Your task to perform on an android device: open wifi settings Image 0: 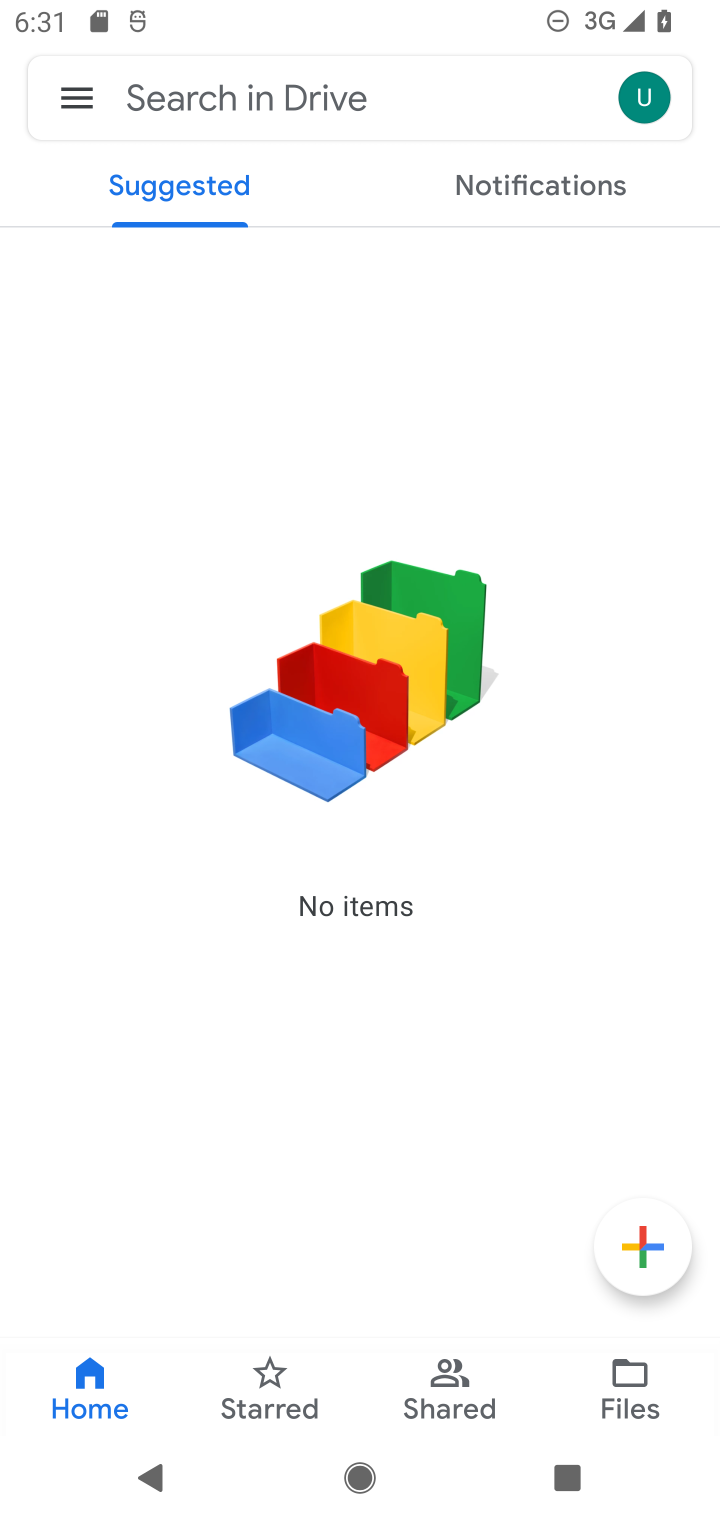
Step 0: press home button
Your task to perform on an android device: open wifi settings Image 1: 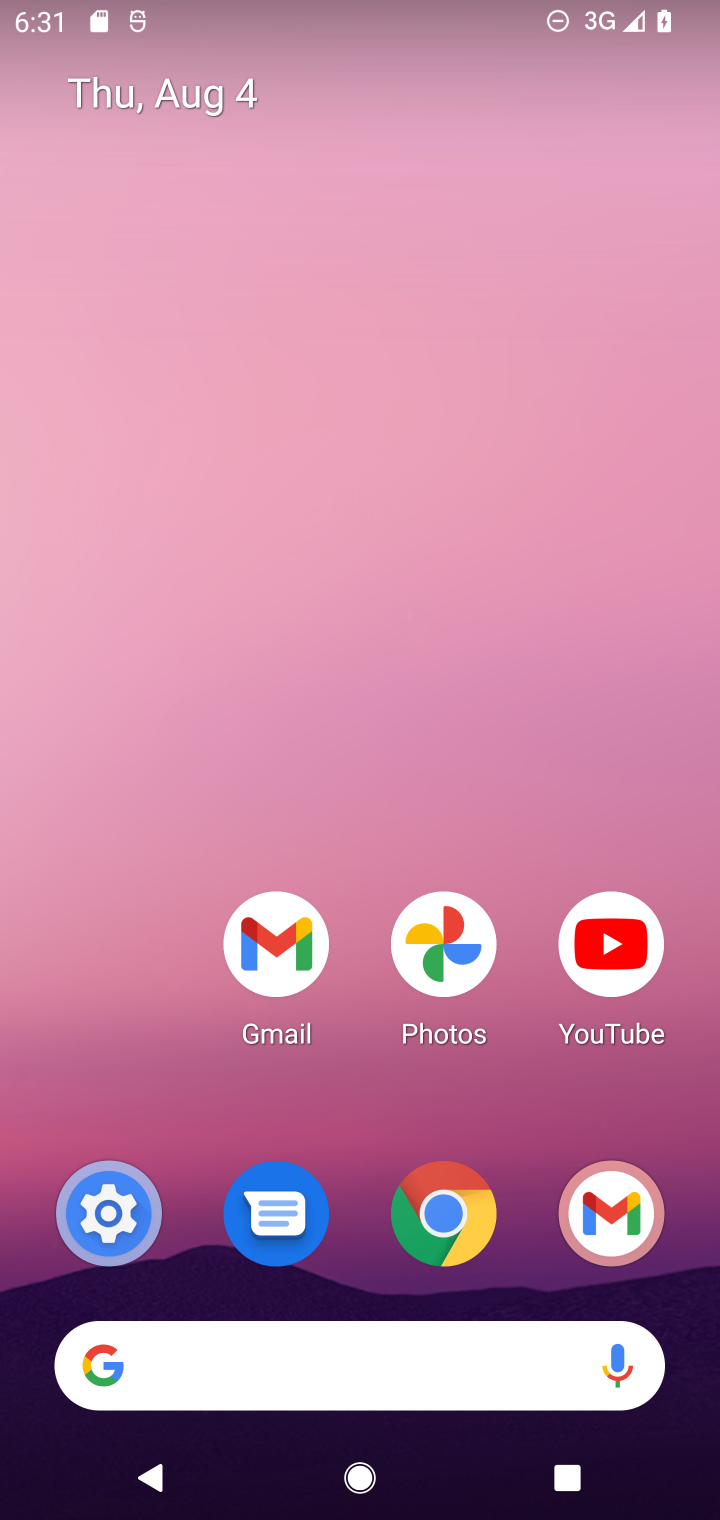
Step 1: drag from (193, 1111) to (220, 430)
Your task to perform on an android device: open wifi settings Image 2: 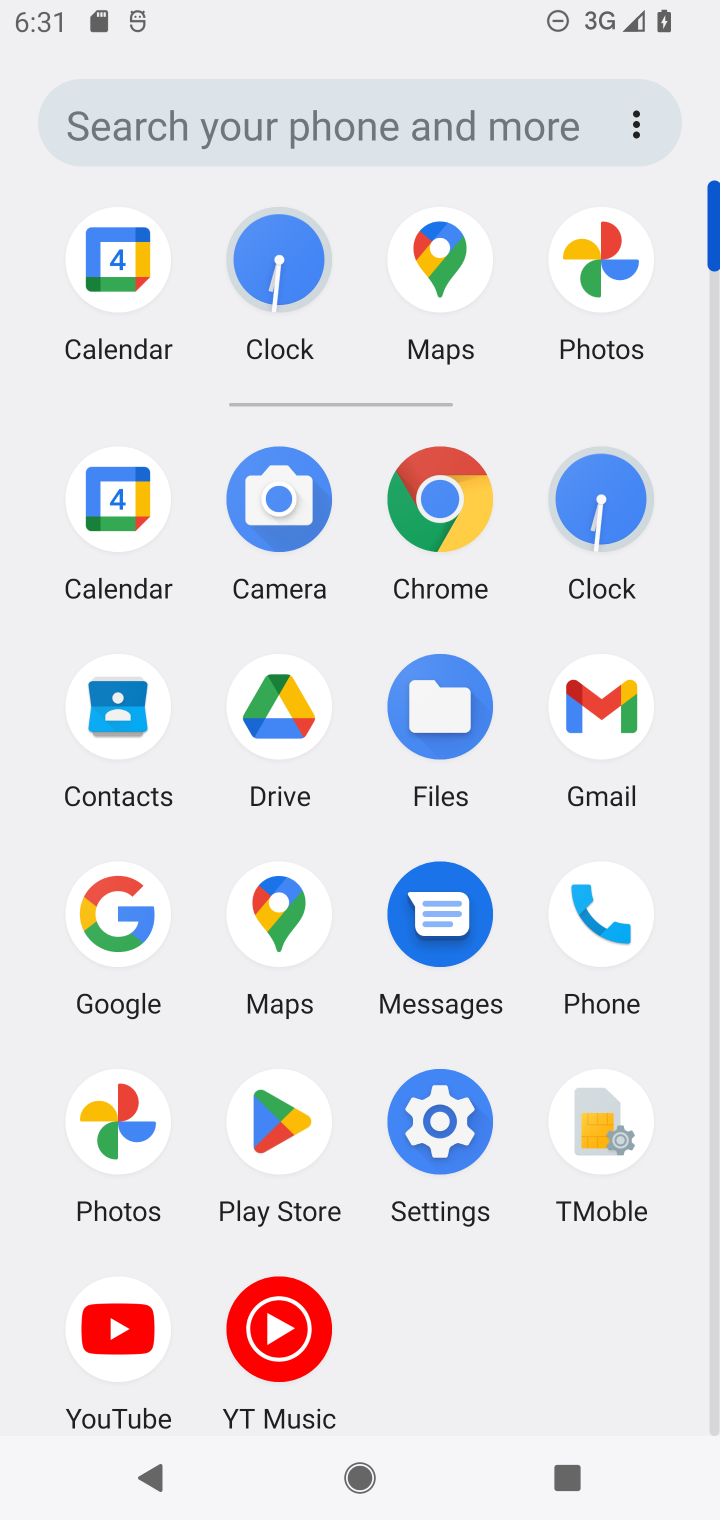
Step 2: click (482, 1134)
Your task to perform on an android device: open wifi settings Image 3: 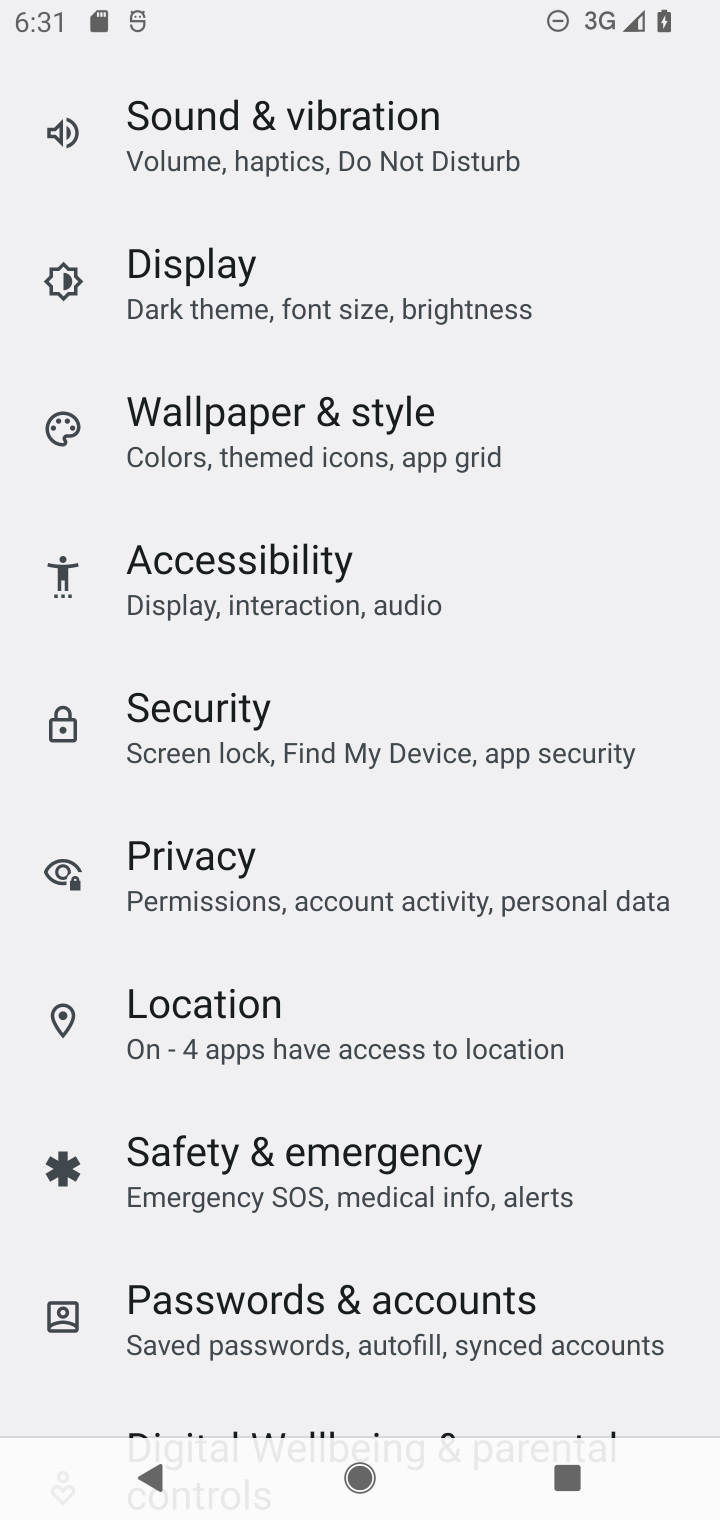
Step 3: drag from (636, 1196) to (640, 902)
Your task to perform on an android device: open wifi settings Image 4: 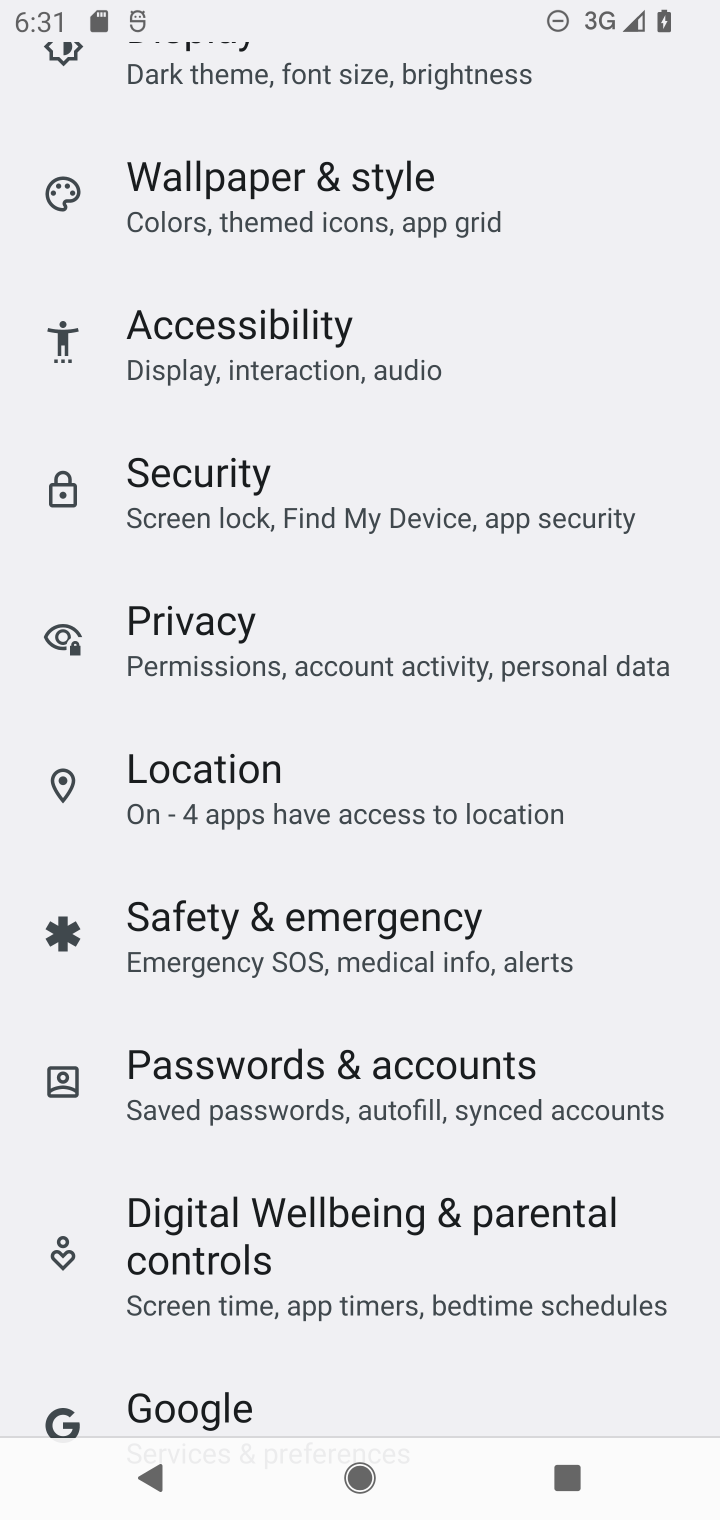
Step 4: drag from (624, 1350) to (619, 1000)
Your task to perform on an android device: open wifi settings Image 5: 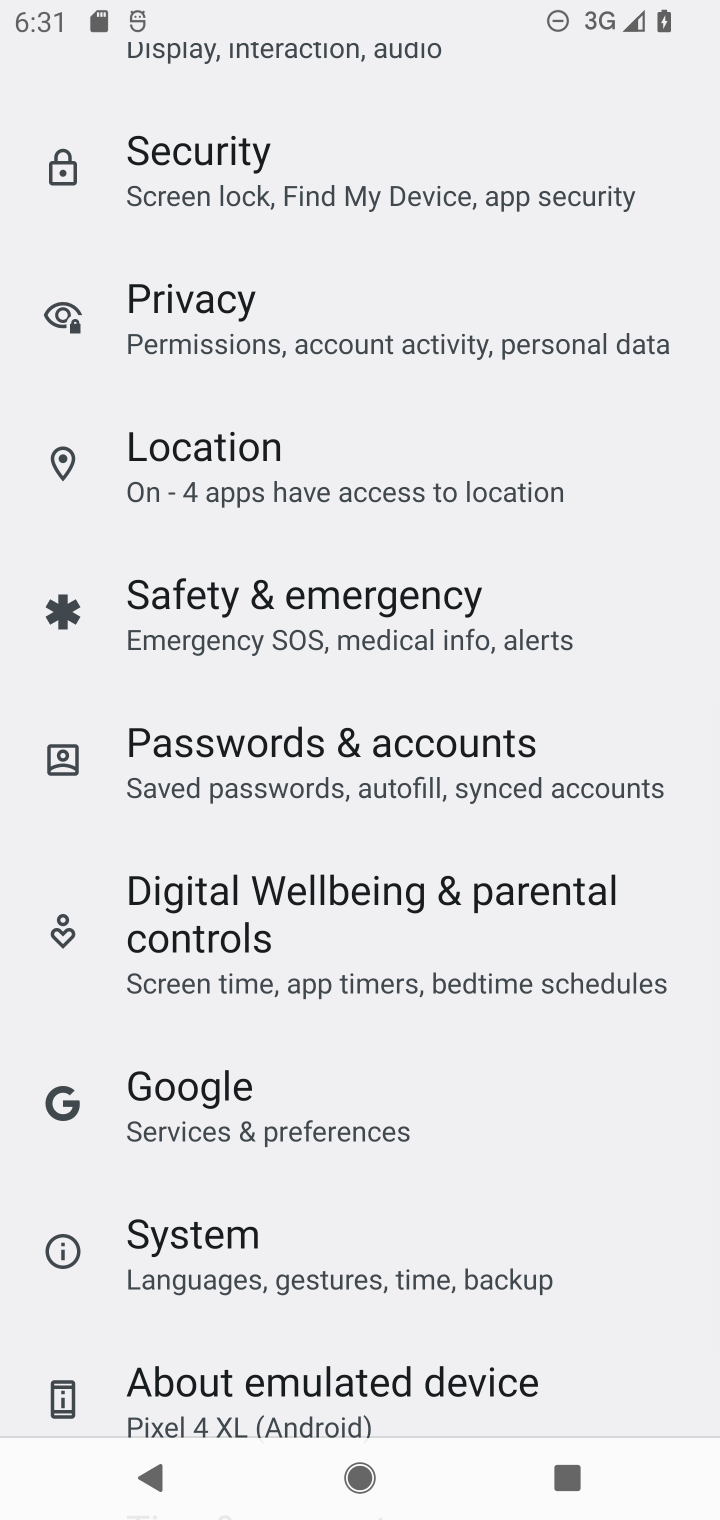
Step 5: drag from (619, 1263) to (621, 1010)
Your task to perform on an android device: open wifi settings Image 6: 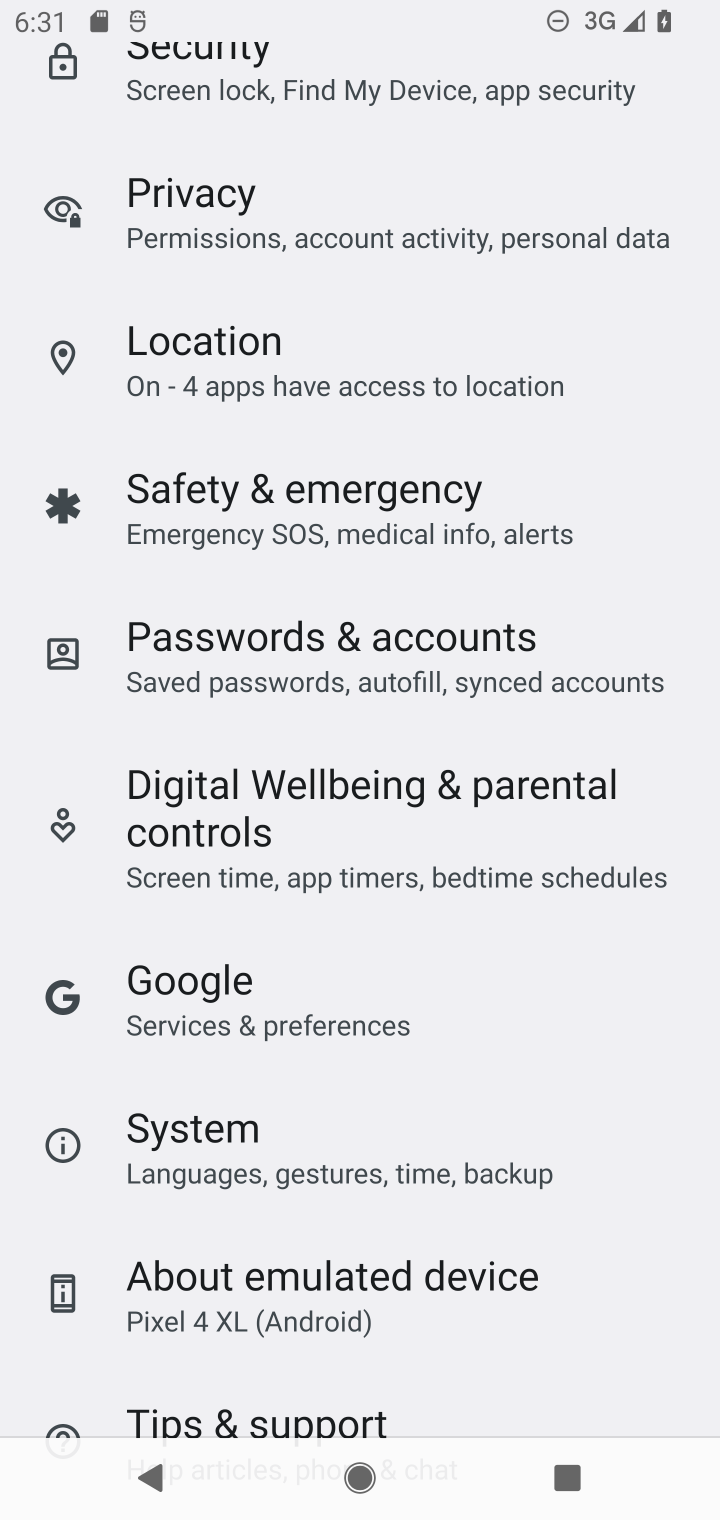
Step 6: drag from (629, 1305) to (617, 989)
Your task to perform on an android device: open wifi settings Image 7: 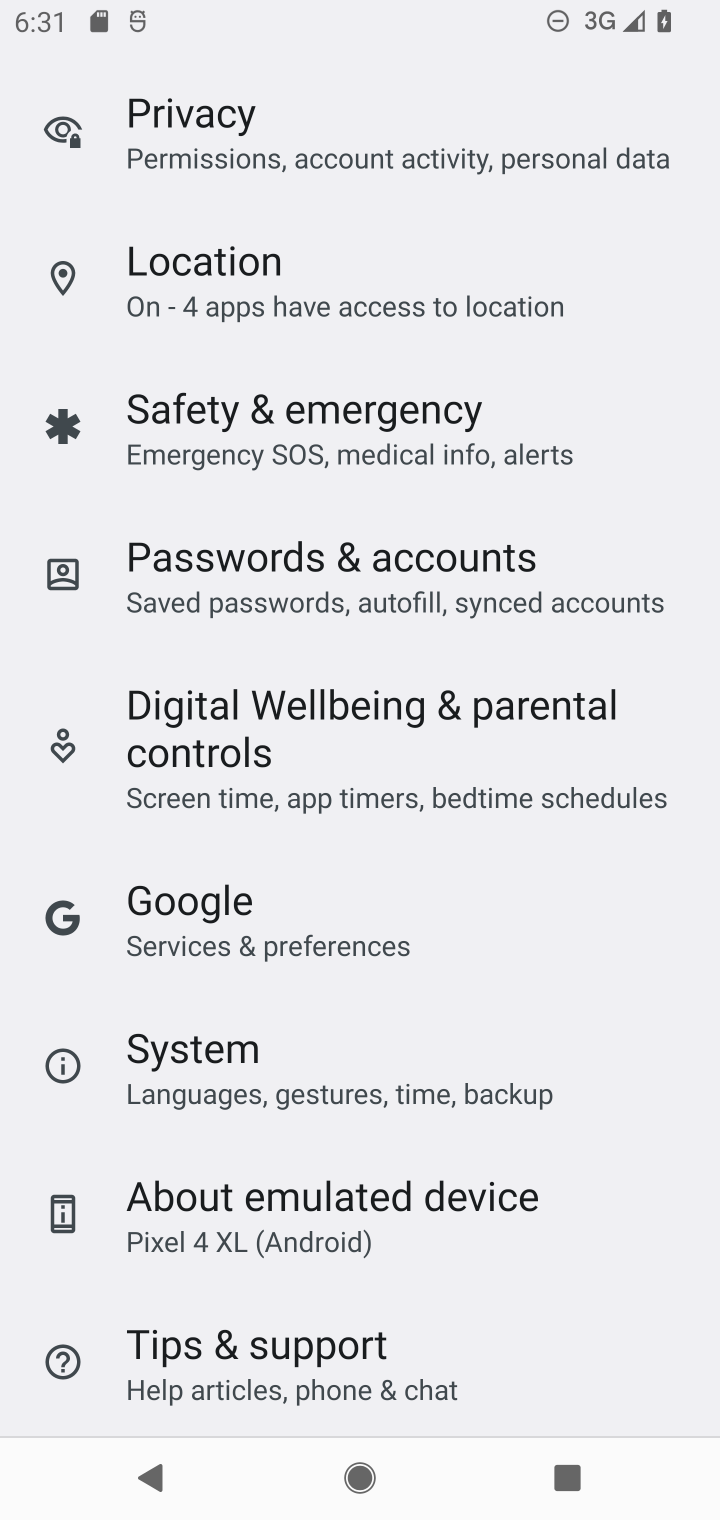
Step 7: drag from (585, 1333) to (614, 1056)
Your task to perform on an android device: open wifi settings Image 8: 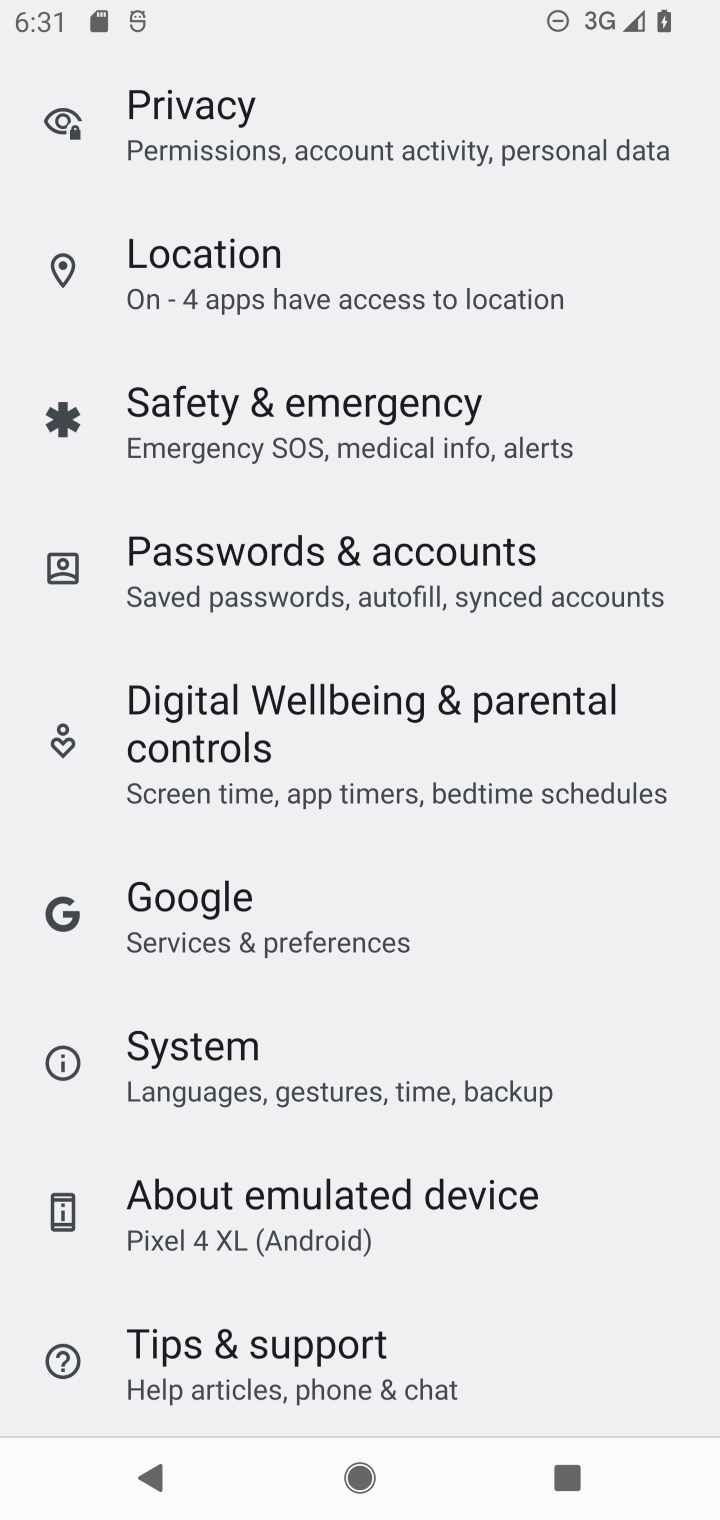
Step 8: drag from (618, 892) to (629, 1094)
Your task to perform on an android device: open wifi settings Image 9: 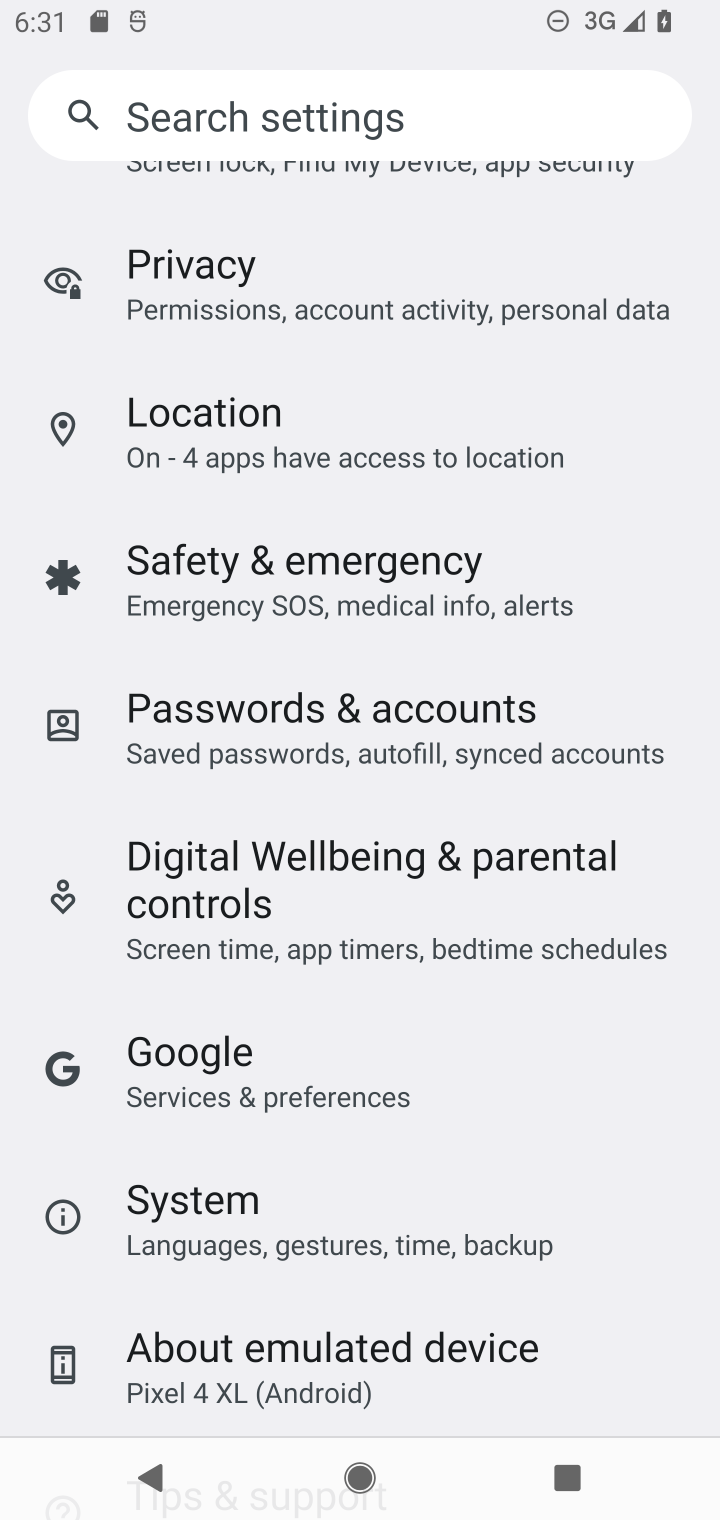
Step 9: drag from (633, 539) to (635, 874)
Your task to perform on an android device: open wifi settings Image 10: 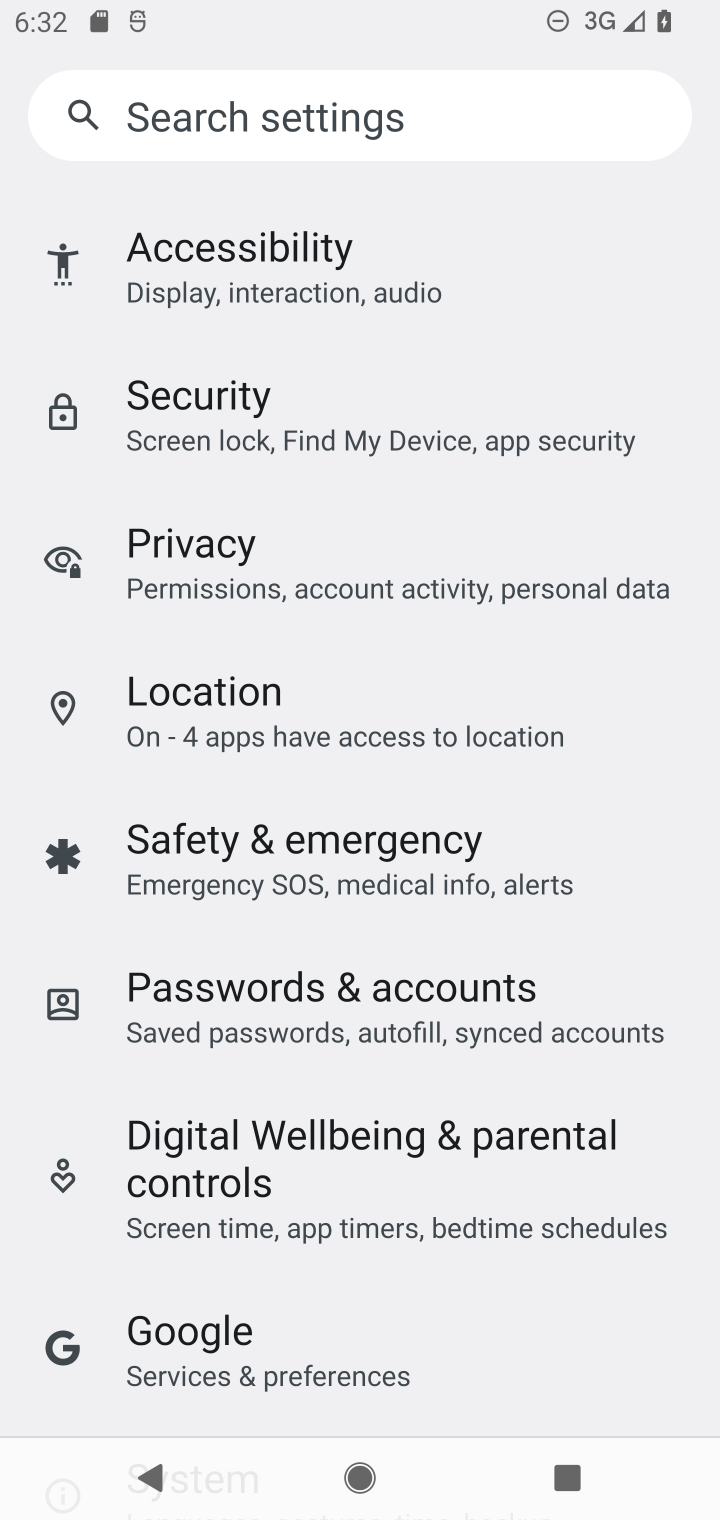
Step 10: drag from (635, 530) to (625, 749)
Your task to perform on an android device: open wifi settings Image 11: 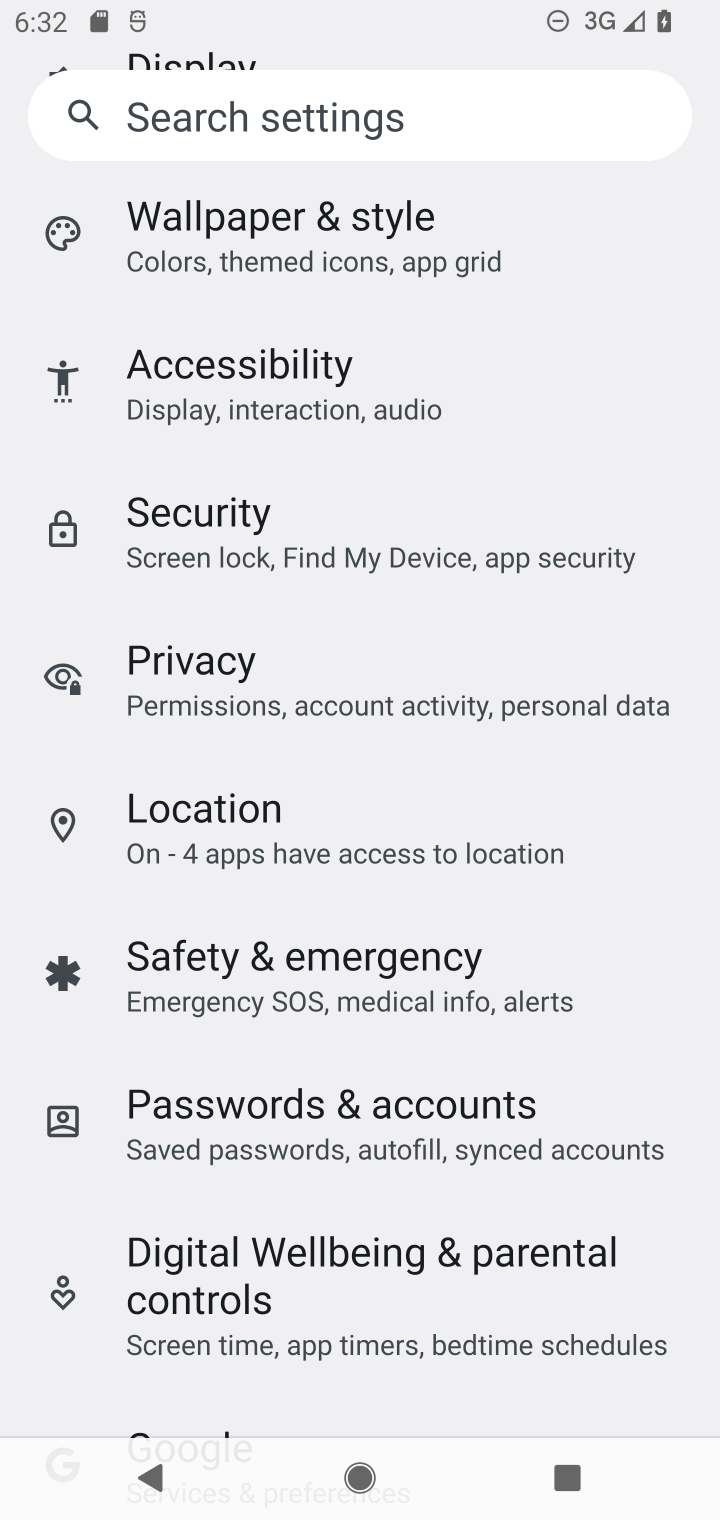
Step 11: drag from (597, 386) to (599, 600)
Your task to perform on an android device: open wifi settings Image 12: 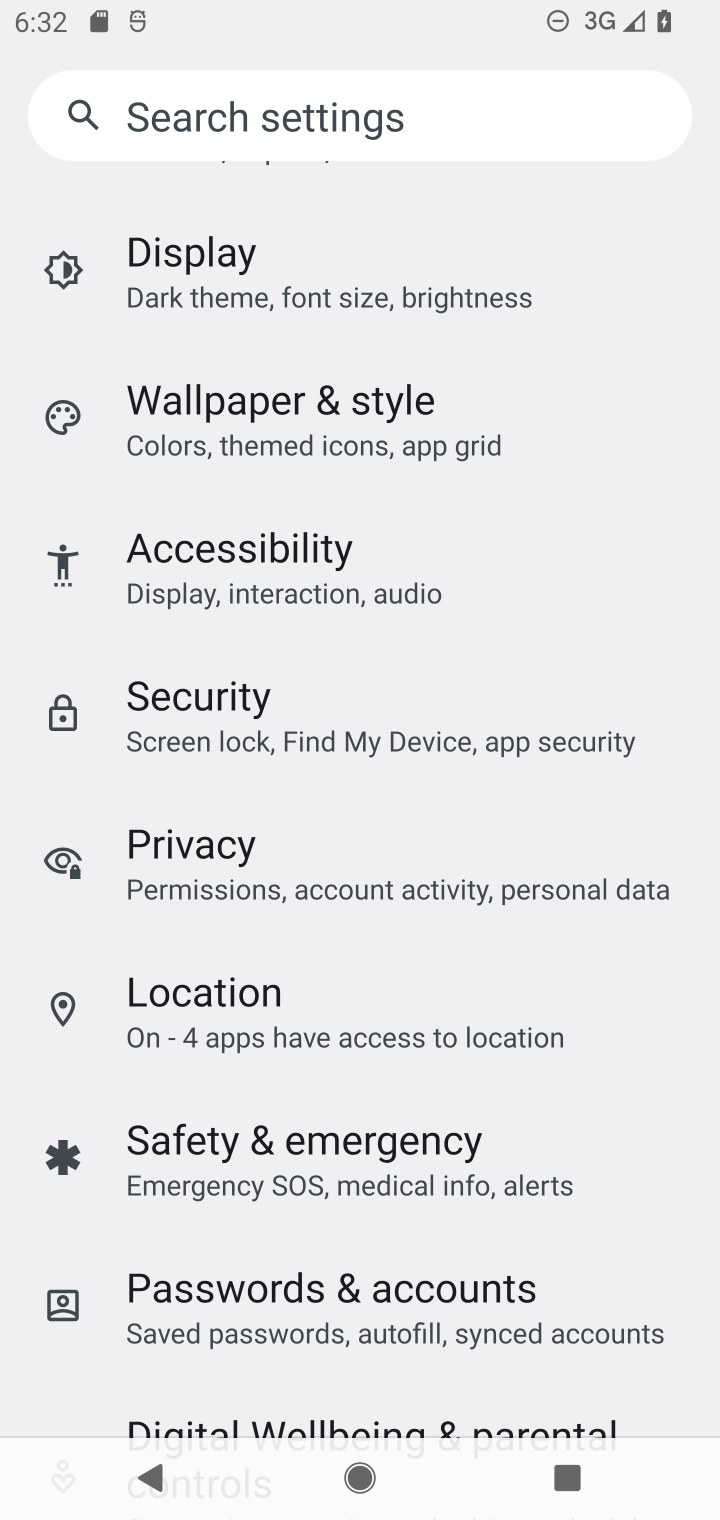
Step 12: drag from (599, 399) to (601, 575)
Your task to perform on an android device: open wifi settings Image 13: 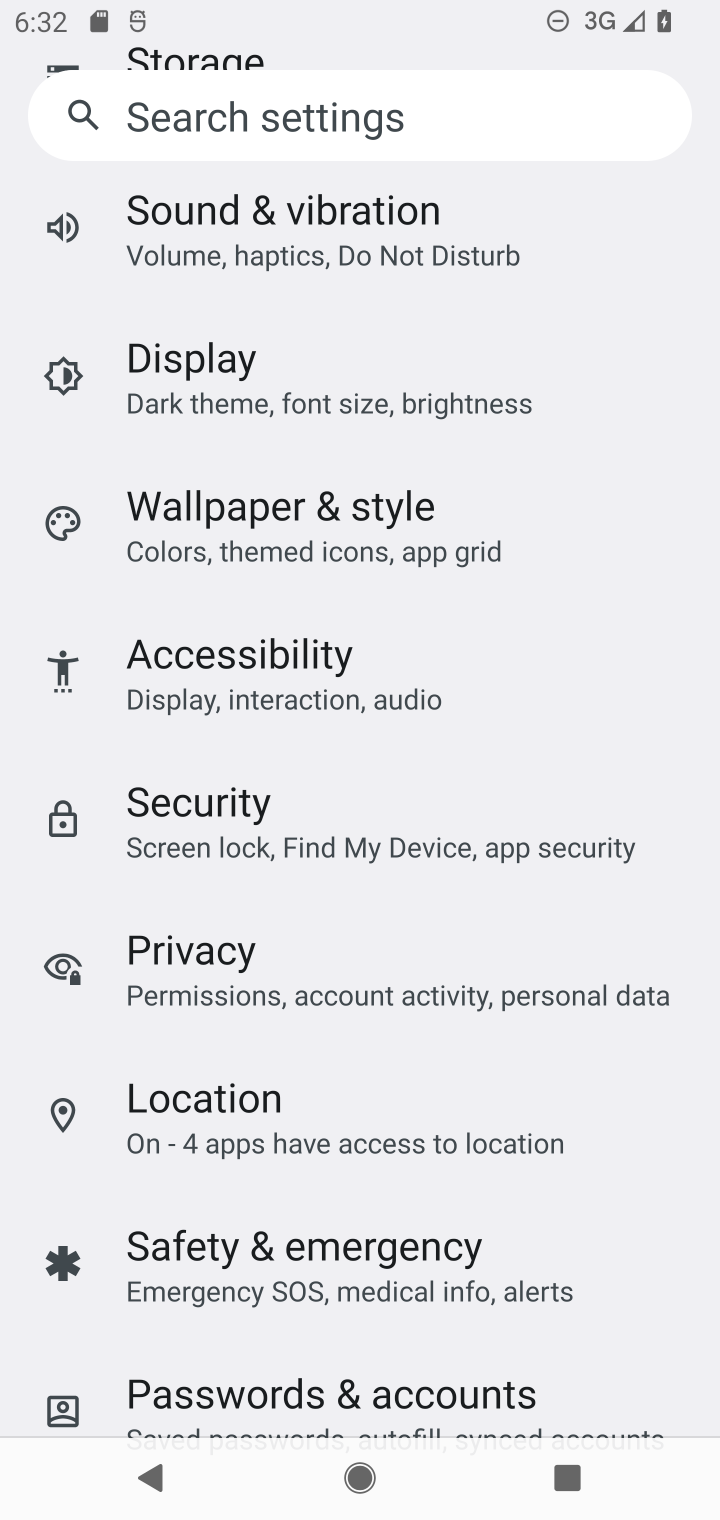
Step 13: drag from (607, 388) to (607, 651)
Your task to perform on an android device: open wifi settings Image 14: 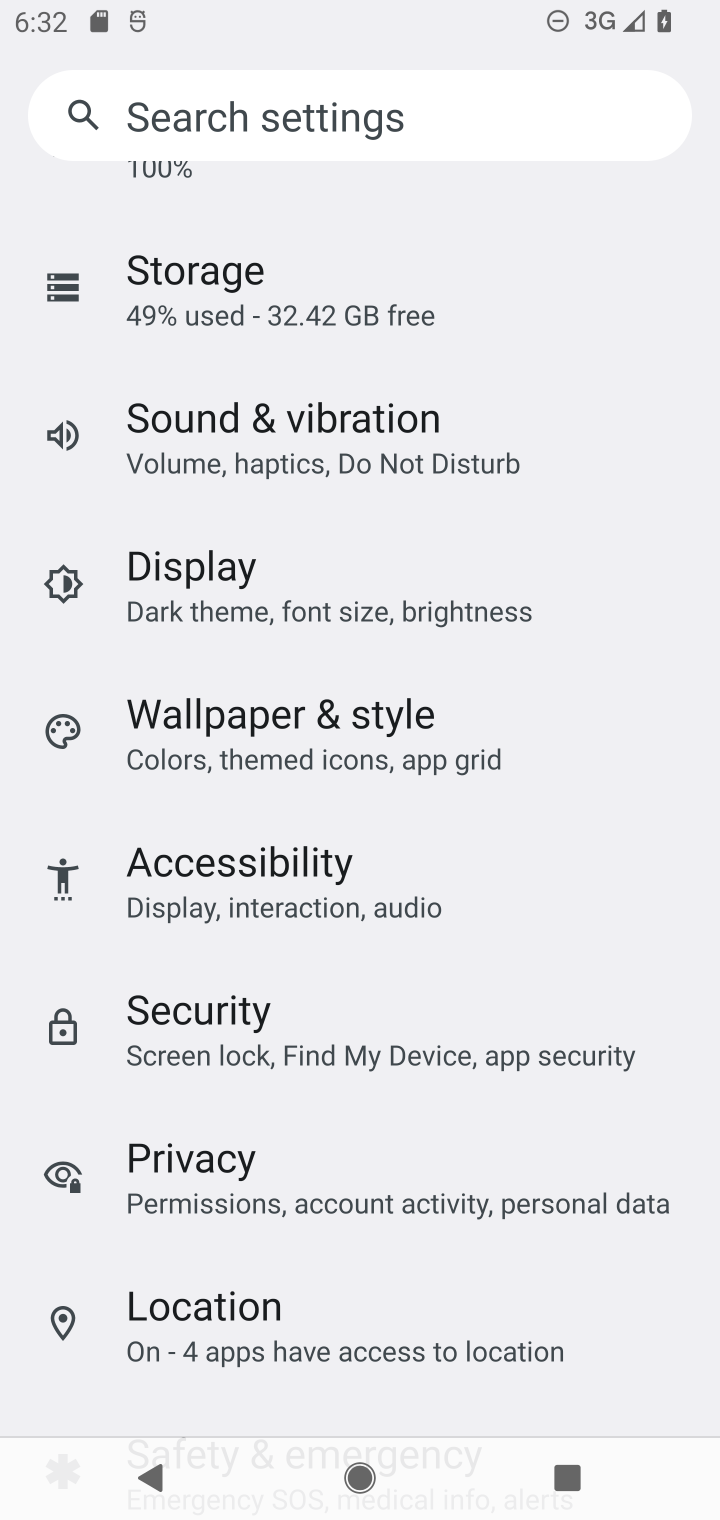
Step 14: drag from (607, 343) to (595, 579)
Your task to perform on an android device: open wifi settings Image 15: 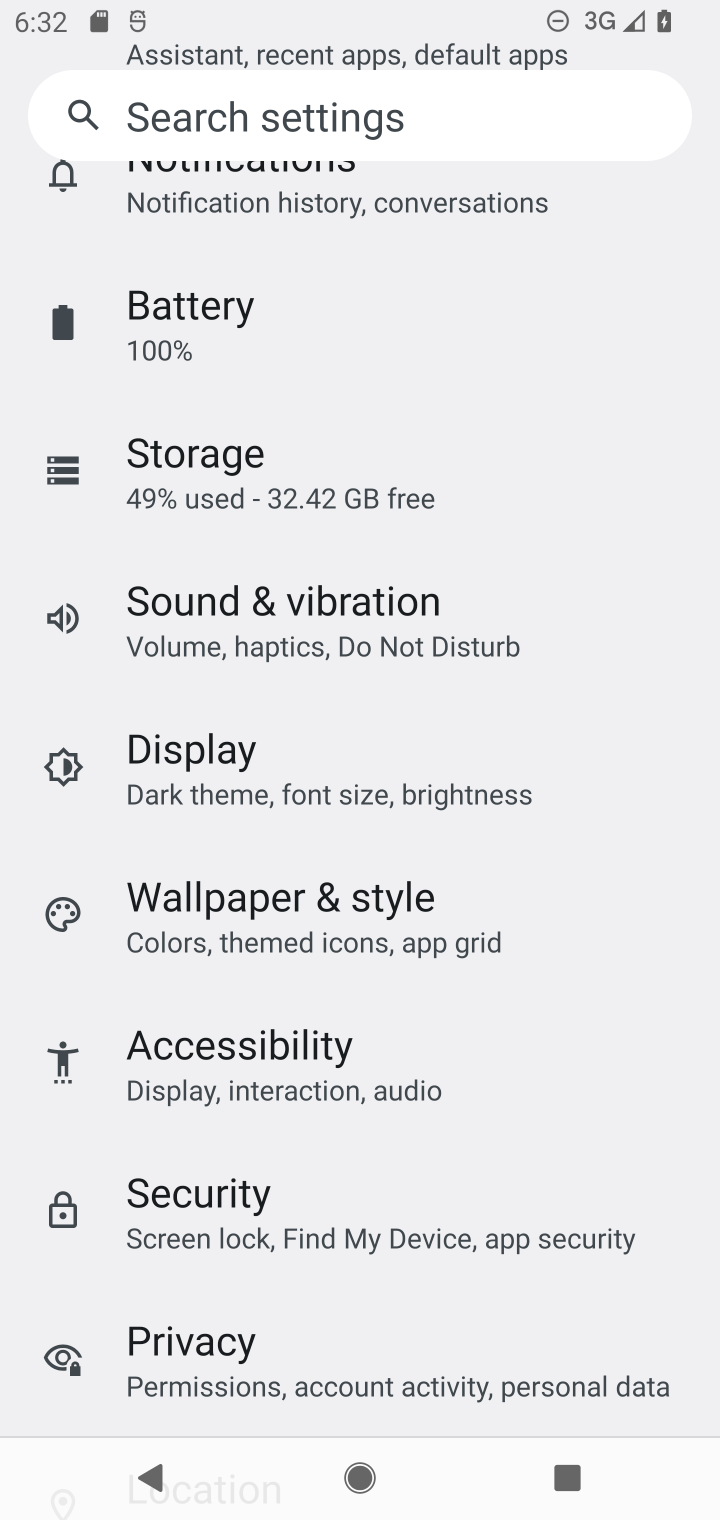
Step 15: drag from (597, 309) to (607, 562)
Your task to perform on an android device: open wifi settings Image 16: 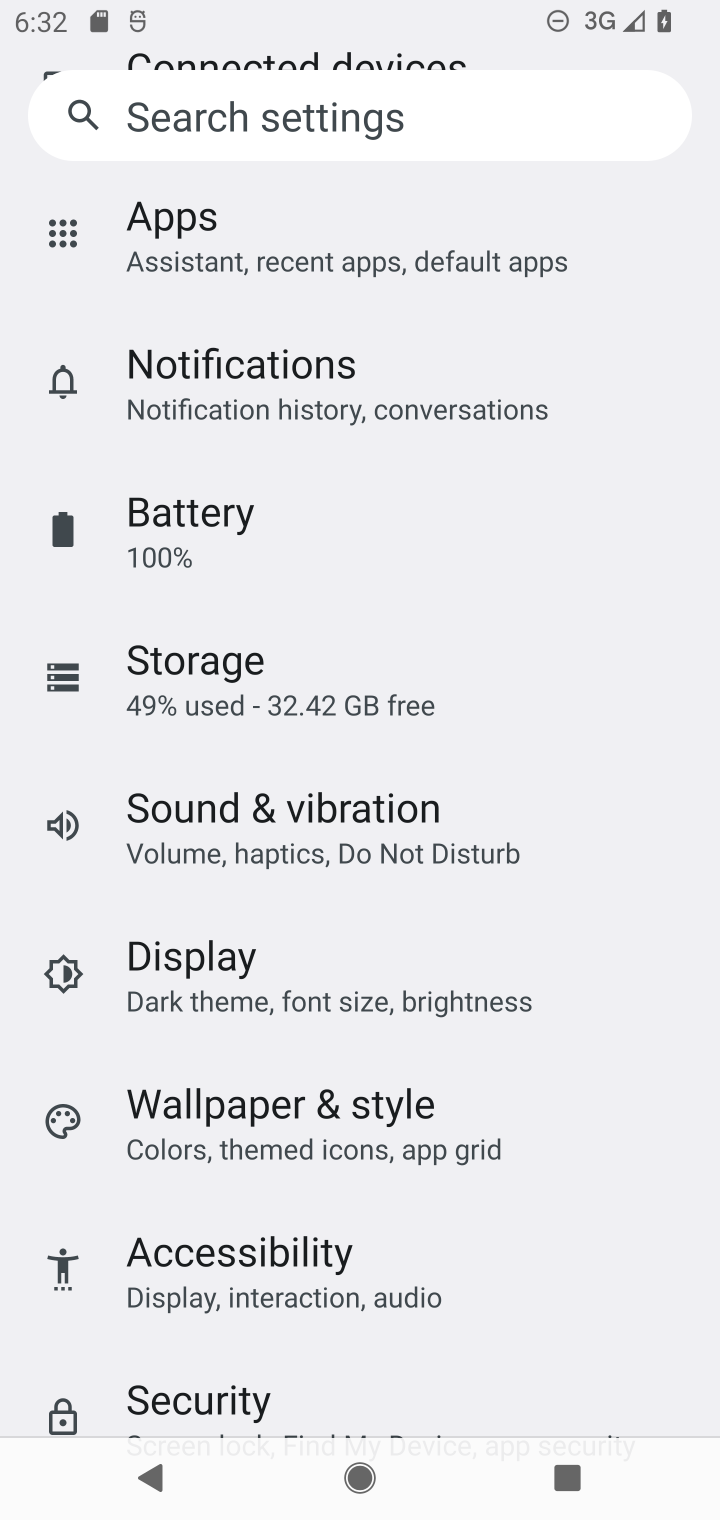
Step 16: drag from (595, 304) to (598, 570)
Your task to perform on an android device: open wifi settings Image 17: 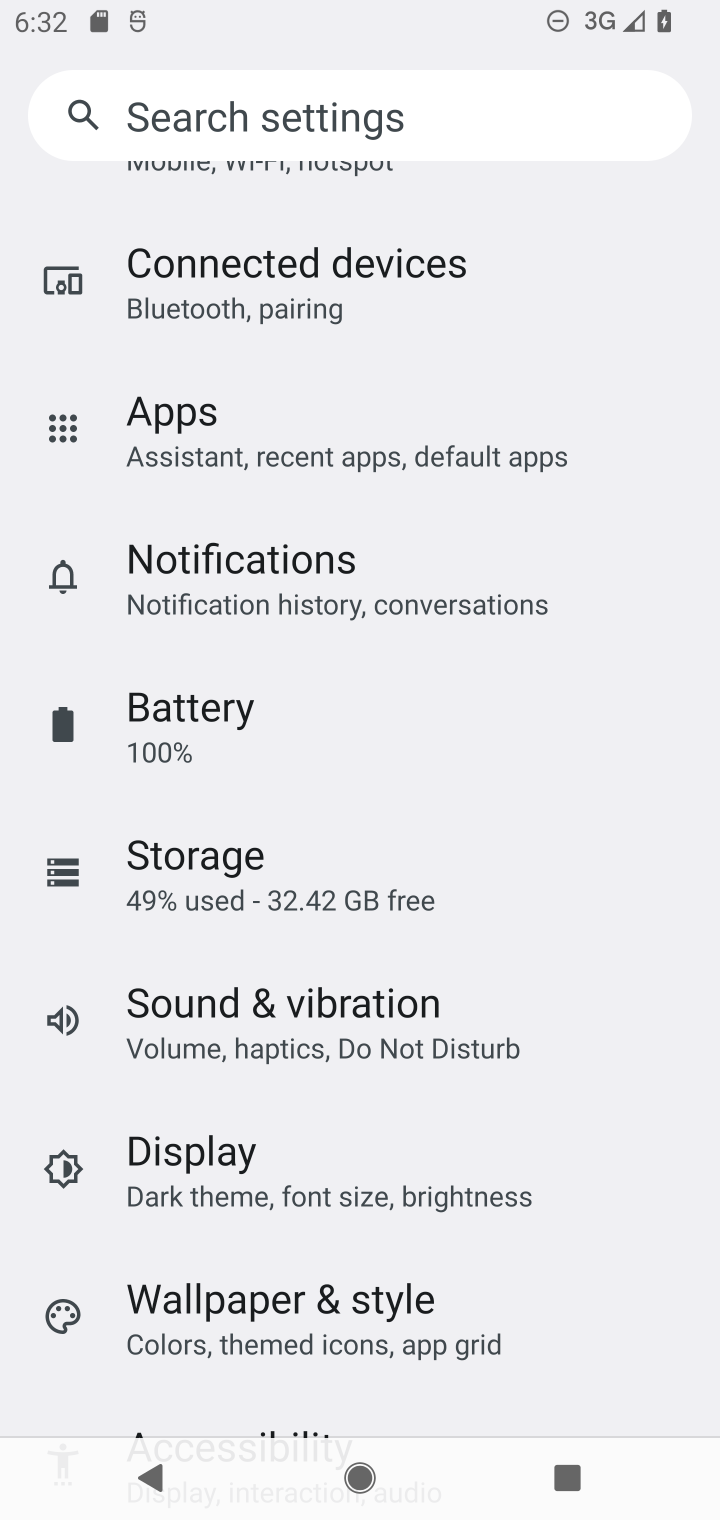
Step 17: drag from (598, 304) to (623, 629)
Your task to perform on an android device: open wifi settings Image 18: 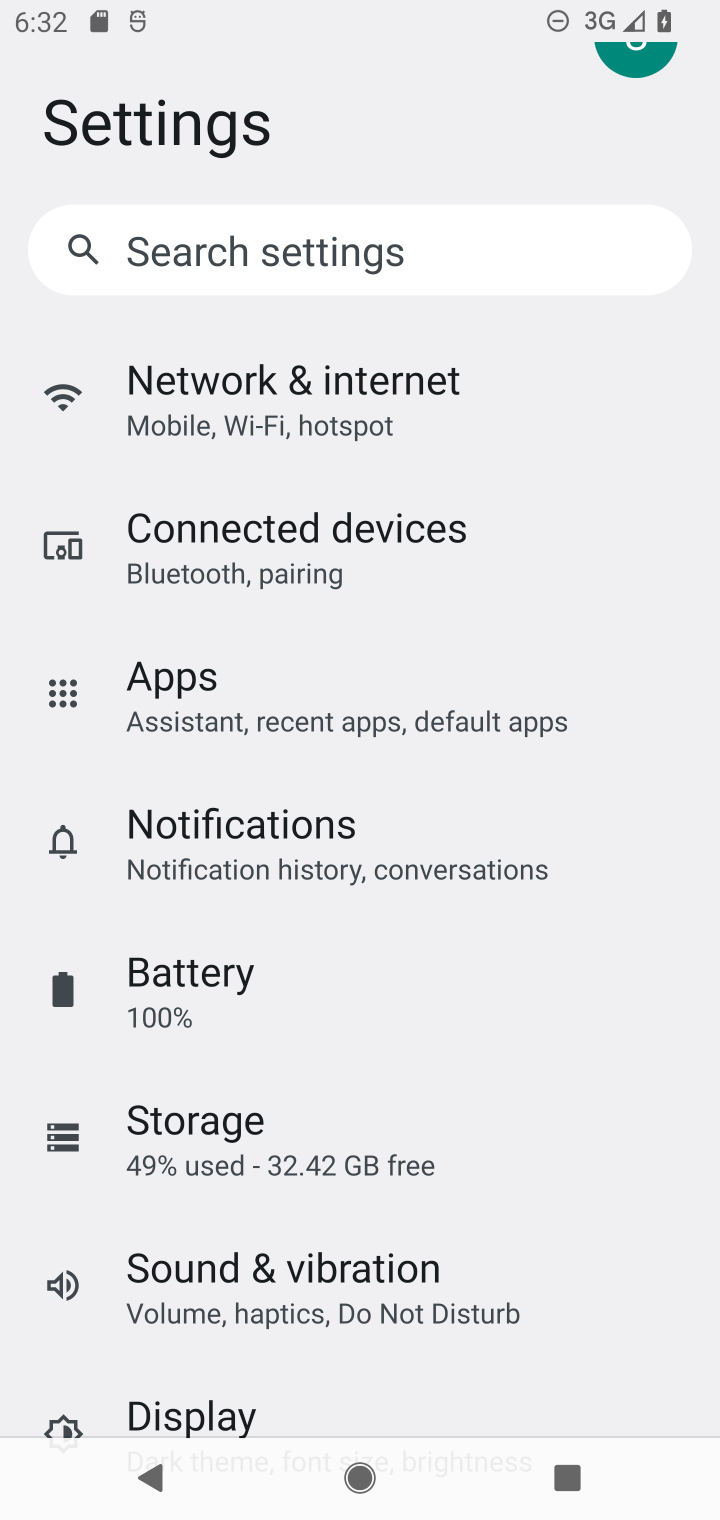
Step 18: drag from (598, 362) to (598, 592)
Your task to perform on an android device: open wifi settings Image 19: 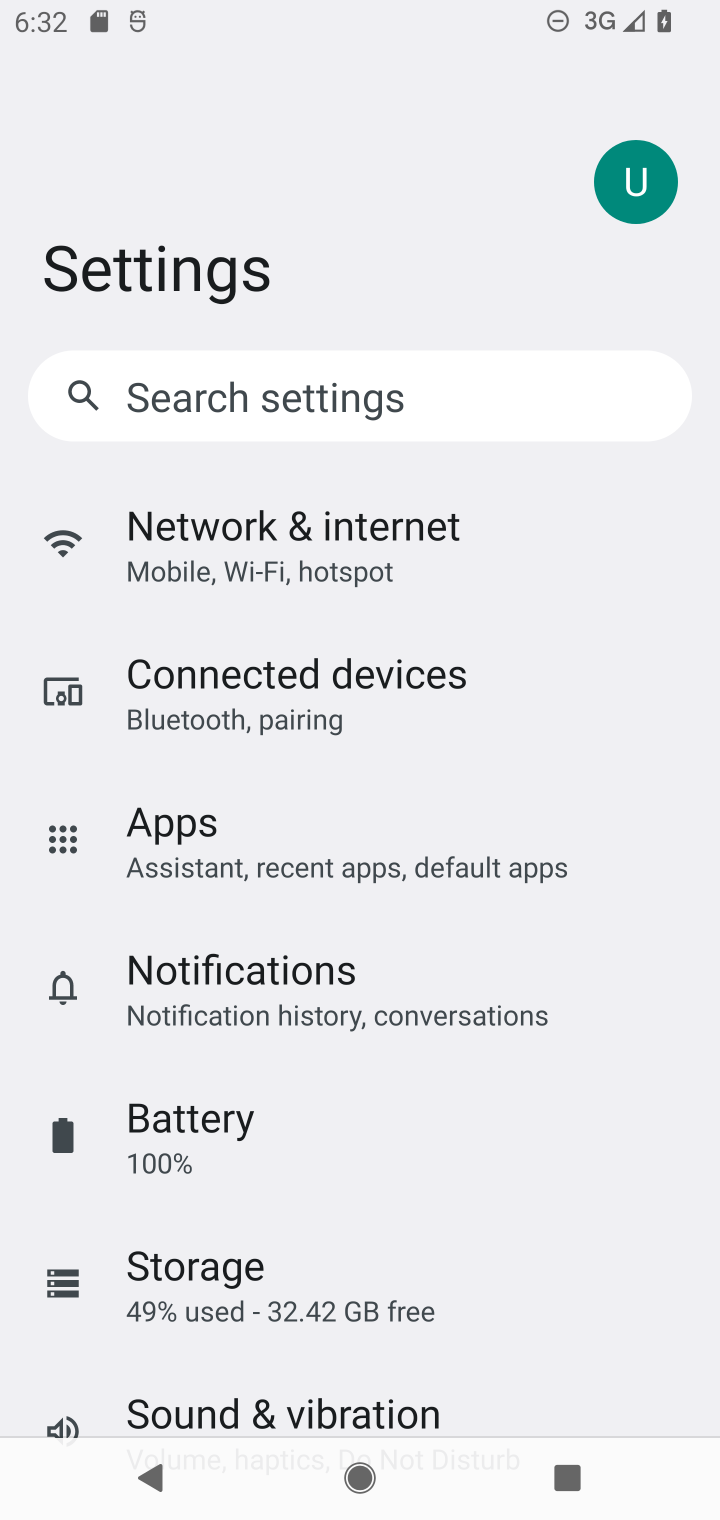
Step 19: click (338, 580)
Your task to perform on an android device: open wifi settings Image 20: 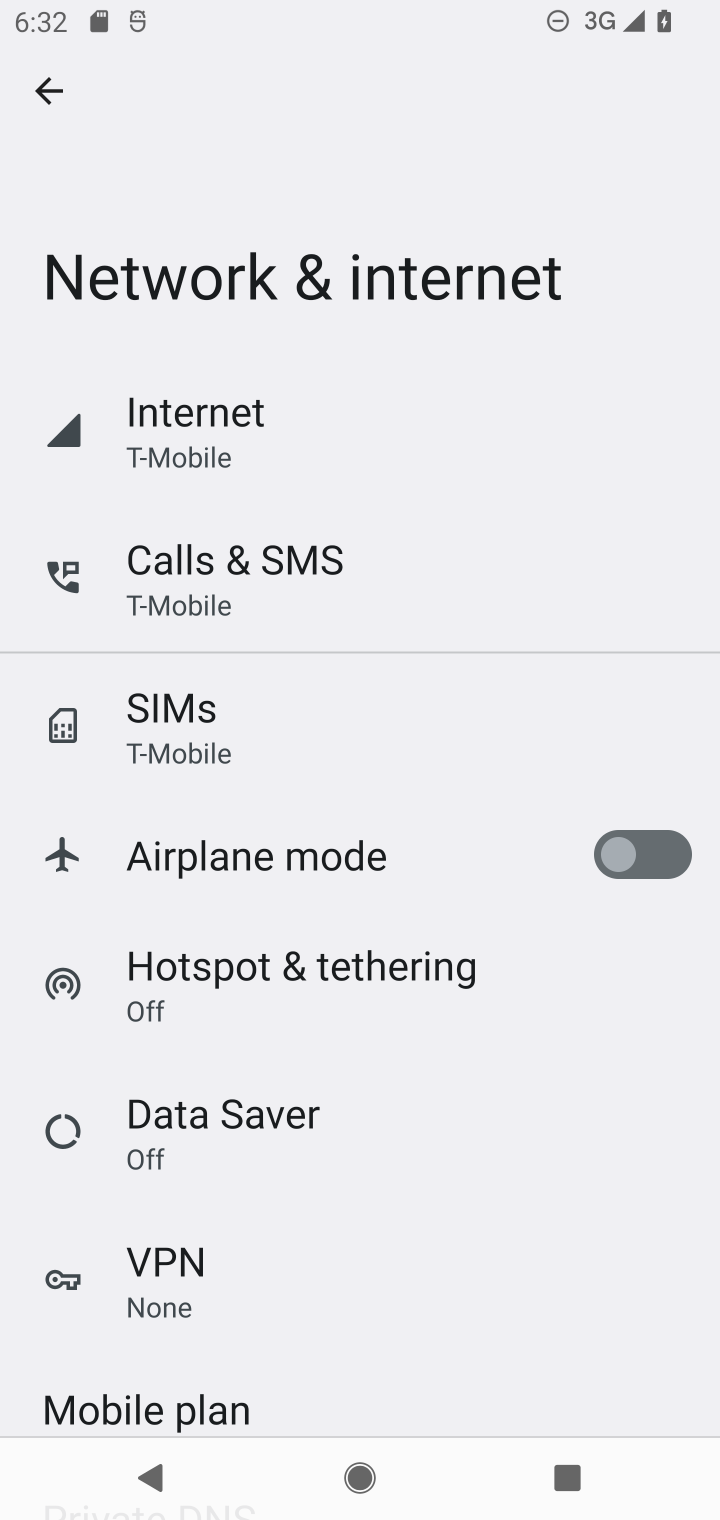
Step 20: click (223, 414)
Your task to perform on an android device: open wifi settings Image 21: 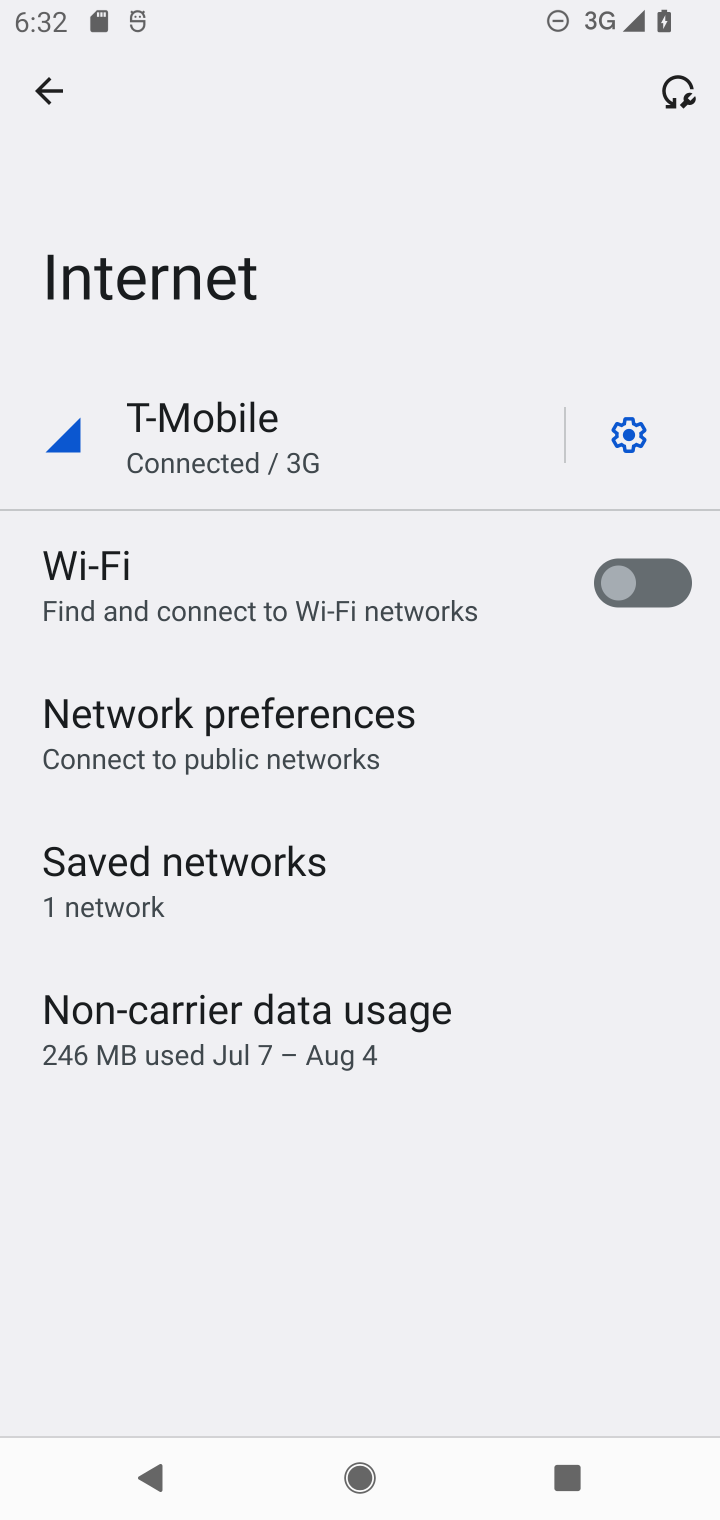
Step 21: task complete